Your task to perform on an android device: check data usage Image 0: 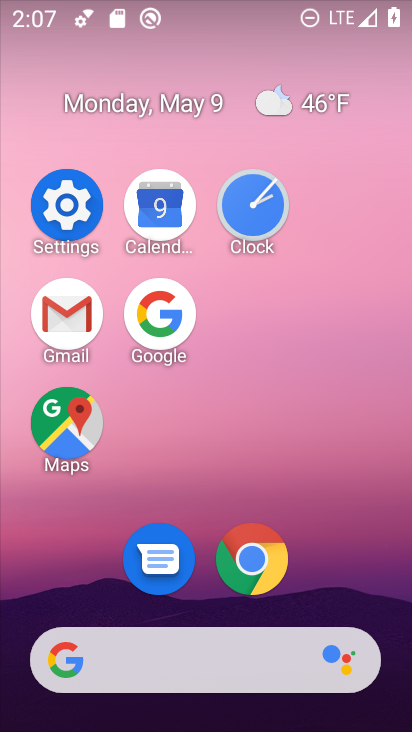
Step 0: click (71, 205)
Your task to perform on an android device: check data usage Image 1: 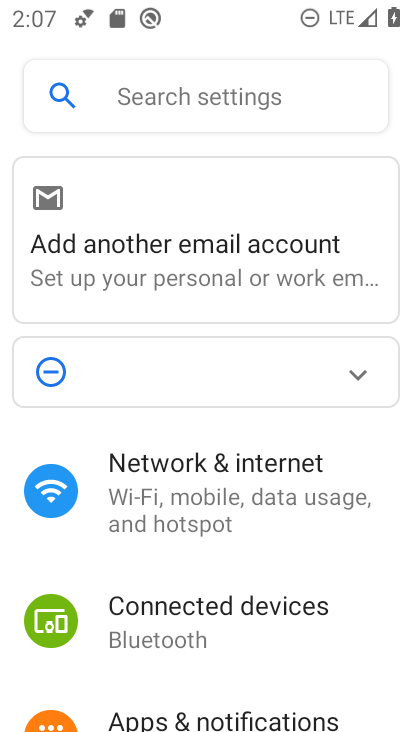
Step 1: drag from (313, 627) to (295, 224)
Your task to perform on an android device: check data usage Image 2: 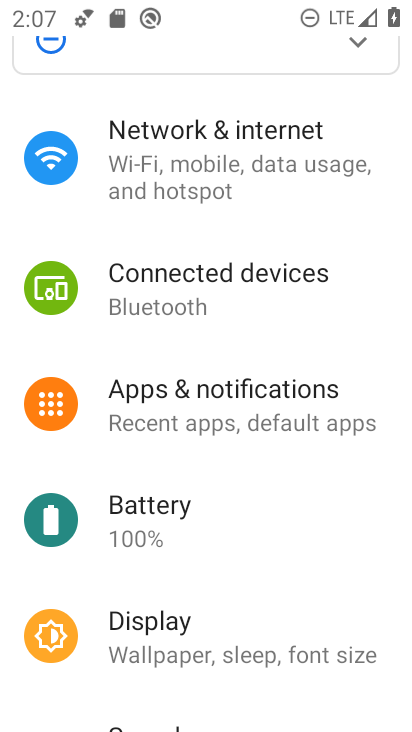
Step 2: click (248, 189)
Your task to perform on an android device: check data usage Image 3: 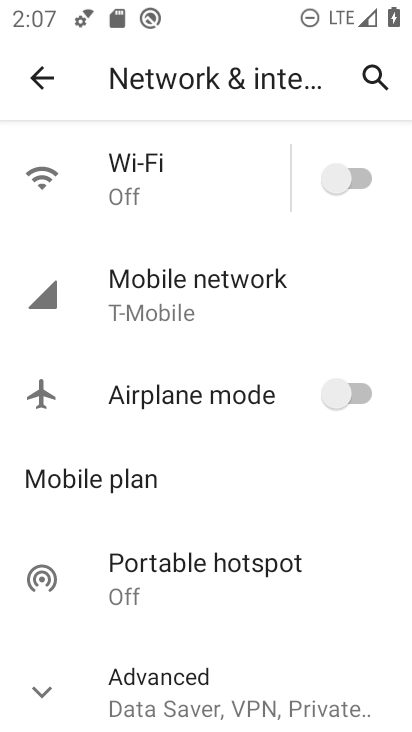
Step 3: click (223, 314)
Your task to perform on an android device: check data usage Image 4: 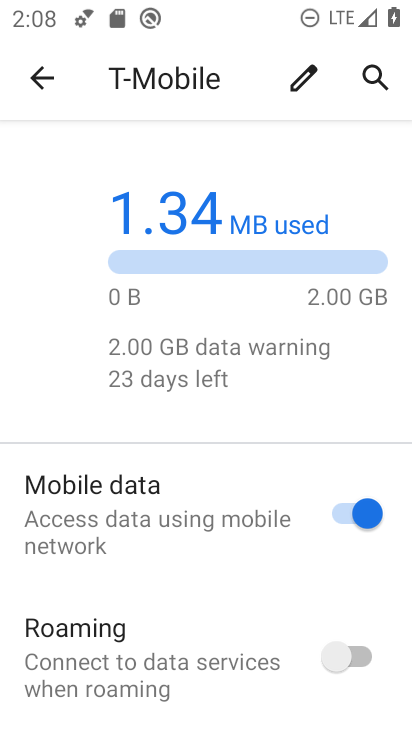
Step 4: drag from (234, 590) to (264, 194)
Your task to perform on an android device: check data usage Image 5: 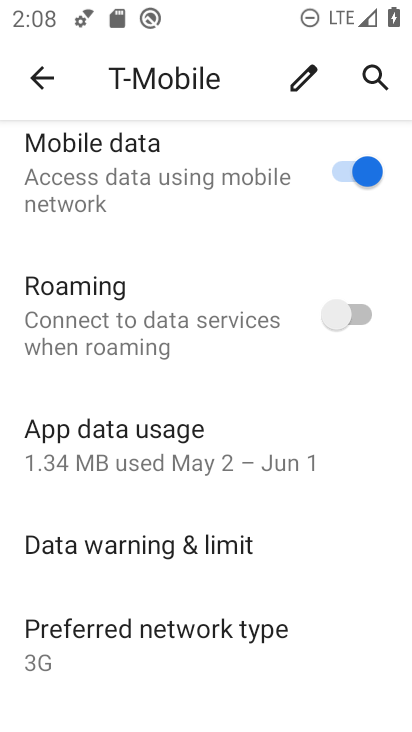
Step 5: click (233, 459)
Your task to perform on an android device: check data usage Image 6: 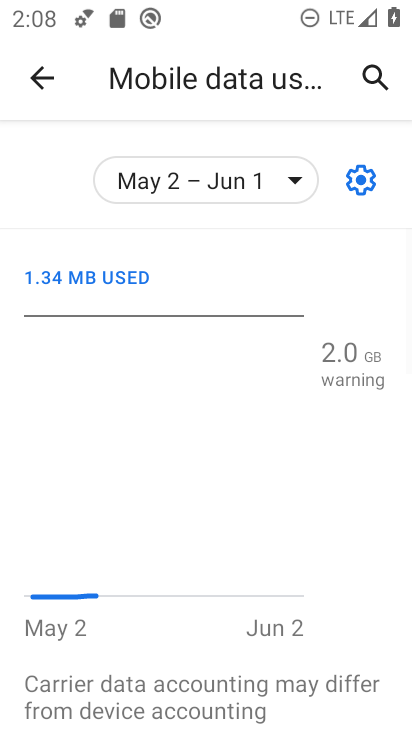
Step 6: task complete